Your task to perform on an android device: Open Reddit.com Image 0: 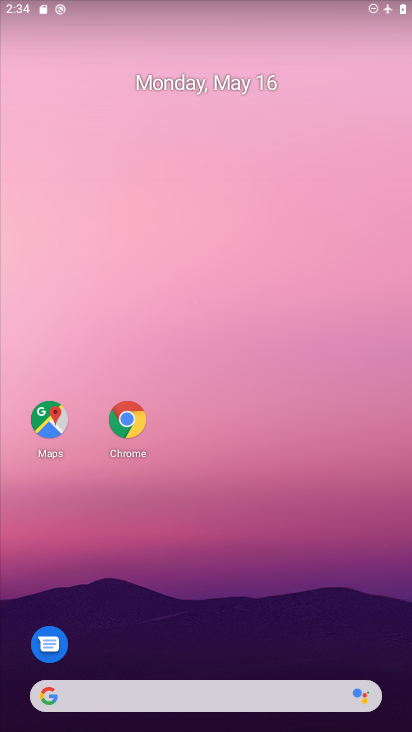
Step 0: drag from (204, 616) to (172, 268)
Your task to perform on an android device: Open Reddit.com Image 1: 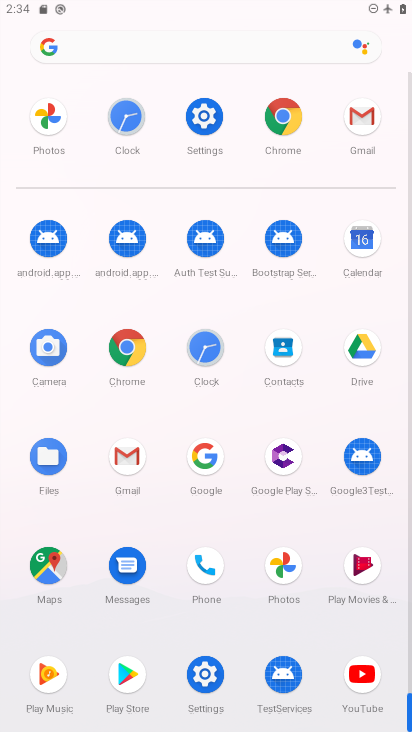
Step 1: click (126, 35)
Your task to perform on an android device: Open Reddit.com Image 2: 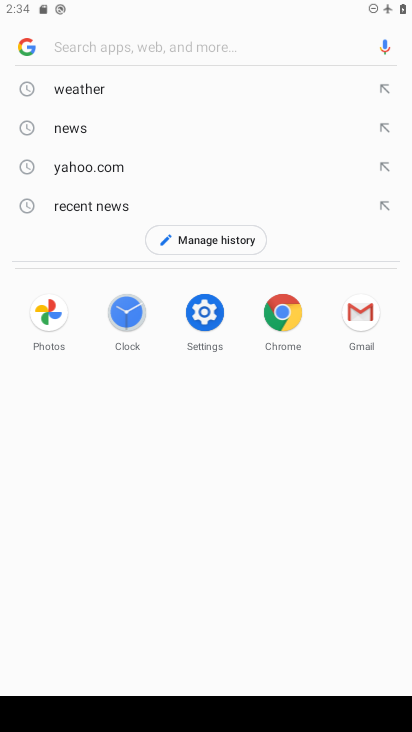
Step 2: type "reddit.com"
Your task to perform on an android device: Open Reddit.com Image 3: 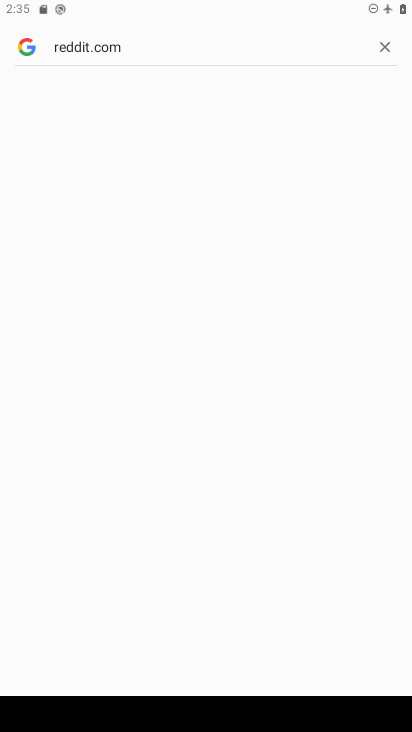
Step 3: click (130, 123)
Your task to perform on an android device: Open Reddit.com Image 4: 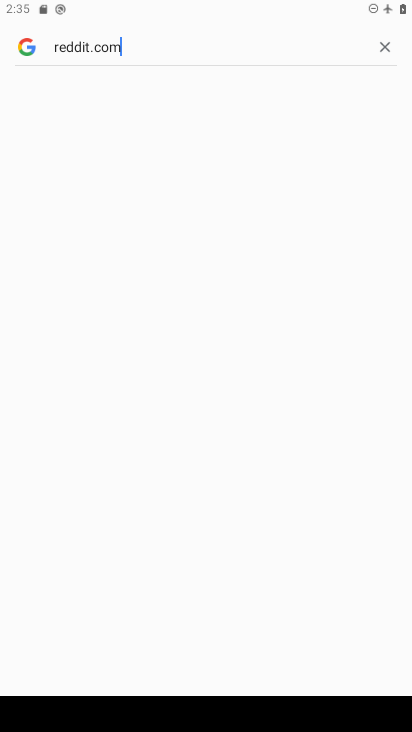
Step 4: task complete